Your task to perform on an android device: Open maps Image 0: 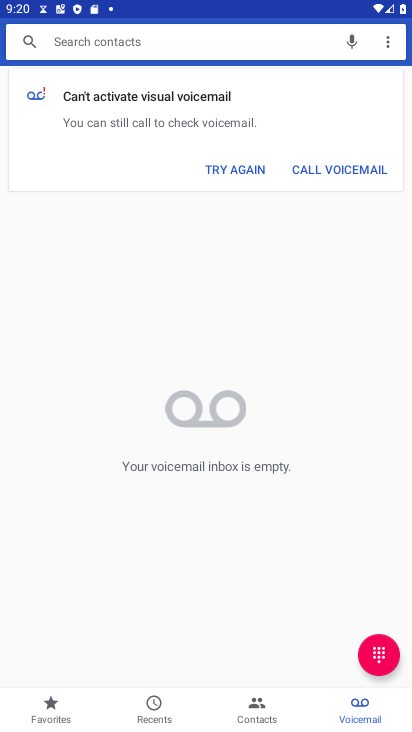
Step 0: press home button
Your task to perform on an android device: Open maps Image 1: 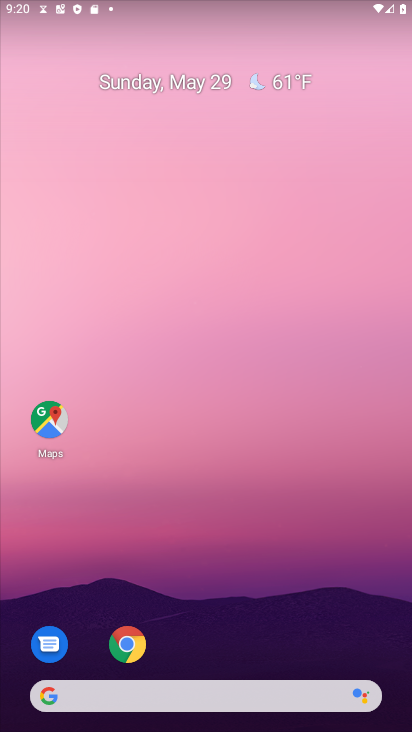
Step 1: click (53, 405)
Your task to perform on an android device: Open maps Image 2: 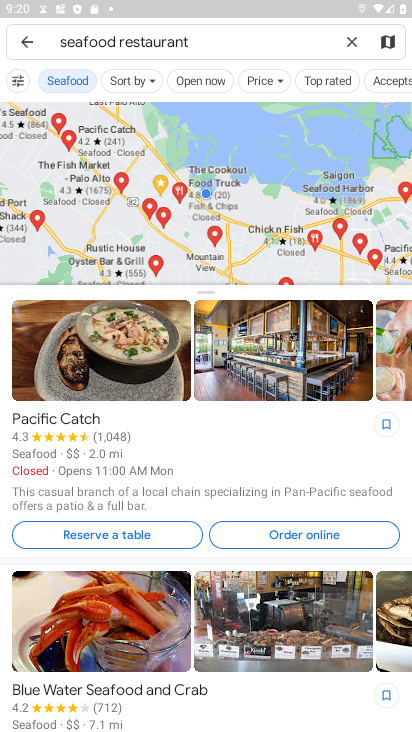
Step 2: task complete